Your task to perform on an android device: Open sound settings Image 0: 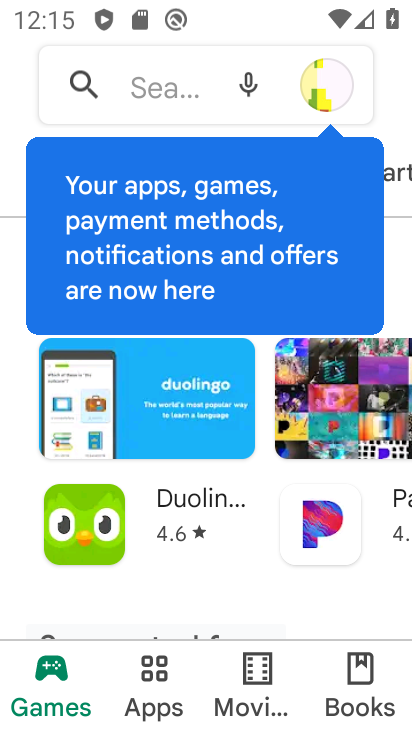
Step 0: press home button
Your task to perform on an android device: Open sound settings Image 1: 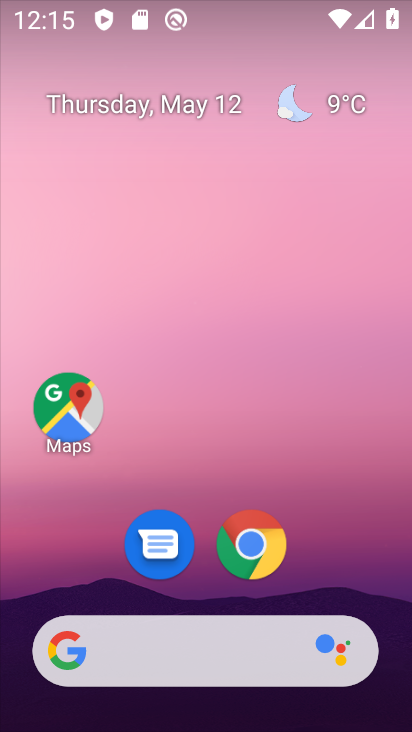
Step 1: drag from (201, 719) to (197, 74)
Your task to perform on an android device: Open sound settings Image 2: 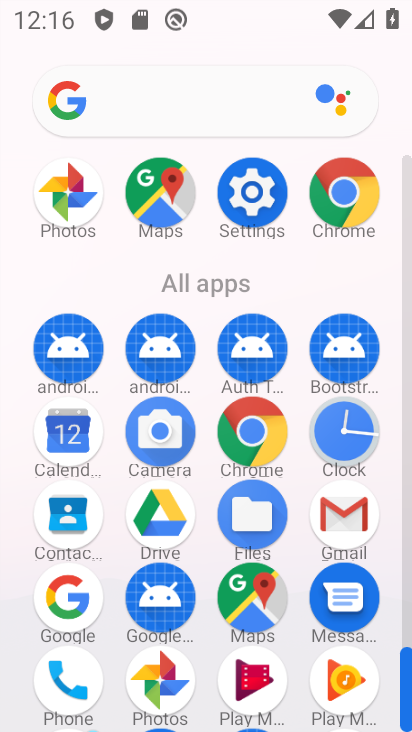
Step 2: click (252, 191)
Your task to perform on an android device: Open sound settings Image 3: 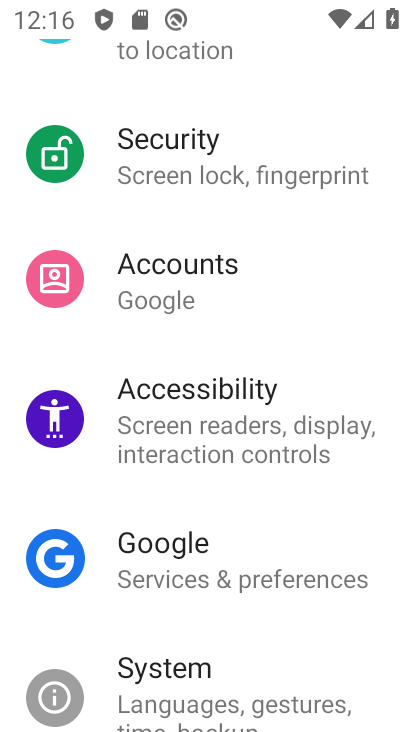
Step 3: drag from (297, 172) to (291, 383)
Your task to perform on an android device: Open sound settings Image 4: 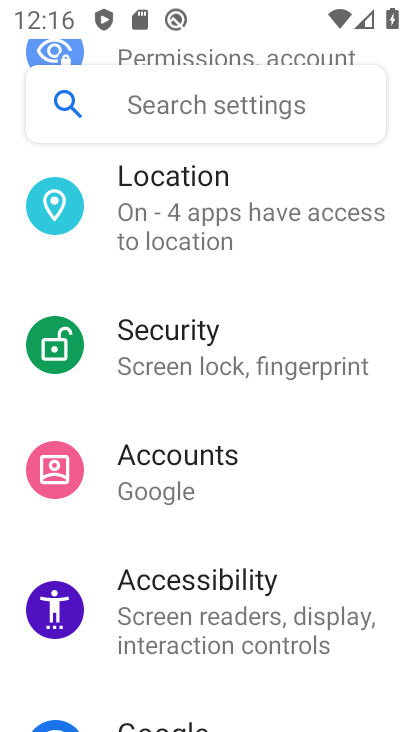
Step 4: drag from (220, 191) to (205, 611)
Your task to perform on an android device: Open sound settings Image 5: 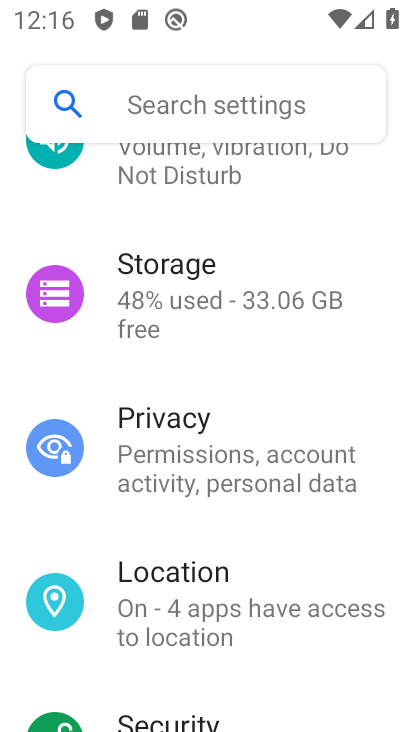
Step 5: drag from (159, 227) to (170, 441)
Your task to perform on an android device: Open sound settings Image 6: 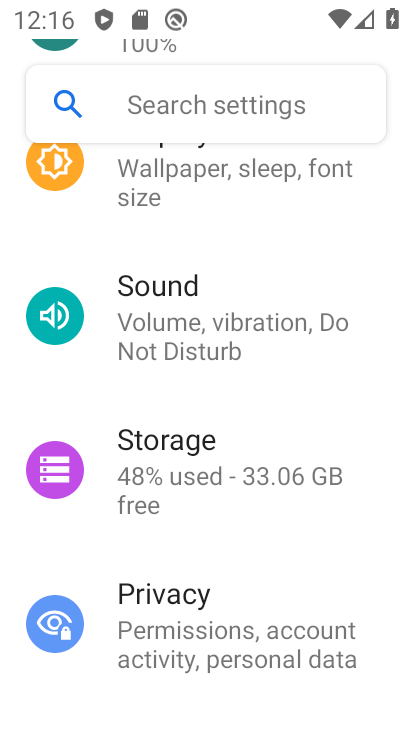
Step 6: click (163, 331)
Your task to perform on an android device: Open sound settings Image 7: 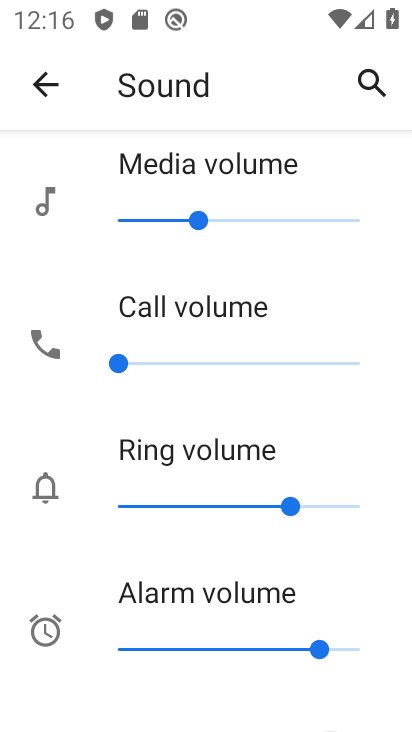
Step 7: task complete